Your task to perform on an android device: Install the CNN app Image 0: 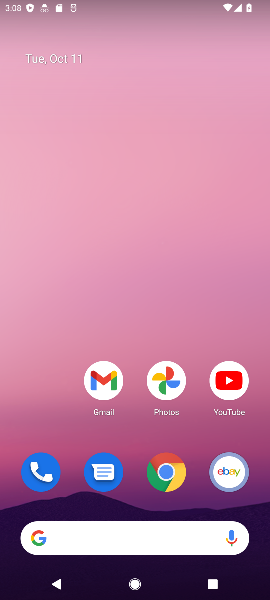
Step 0: drag from (135, 504) to (153, 4)
Your task to perform on an android device: Install the CNN app Image 1: 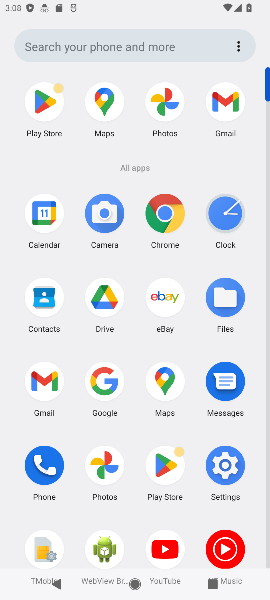
Step 1: click (54, 114)
Your task to perform on an android device: Install the CNN app Image 2: 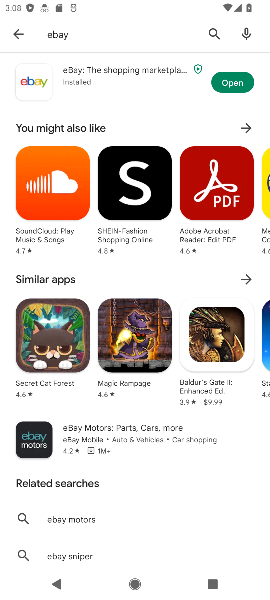
Step 2: click (216, 32)
Your task to perform on an android device: Install the CNN app Image 3: 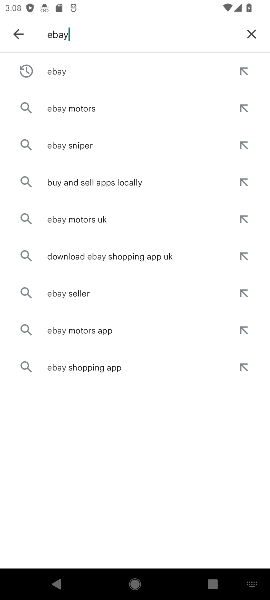
Step 3: click (254, 33)
Your task to perform on an android device: Install the CNN app Image 4: 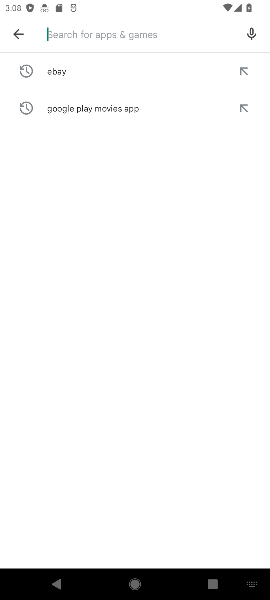
Step 4: type "cnn"
Your task to perform on an android device: Install the CNN app Image 5: 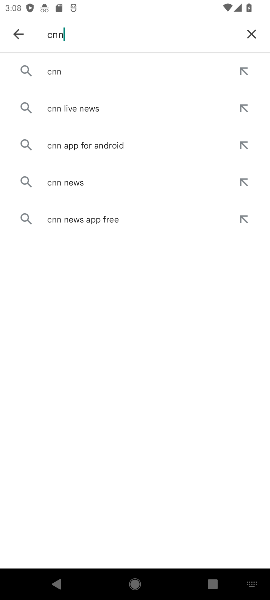
Step 5: click (177, 65)
Your task to perform on an android device: Install the CNN app Image 6: 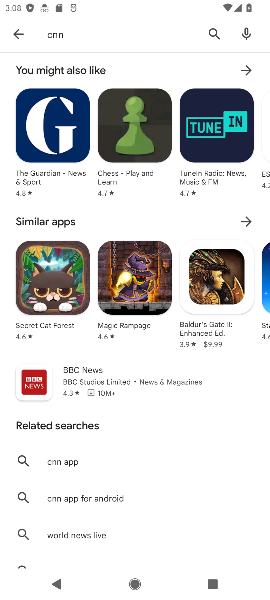
Step 6: click (73, 455)
Your task to perform on an android device: Install the CNN app Image 7: 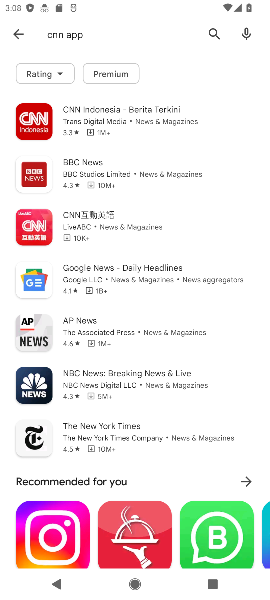
Step 7: click (78, 123)
Your task to perform on an android device: Install the CNN app Image 8: 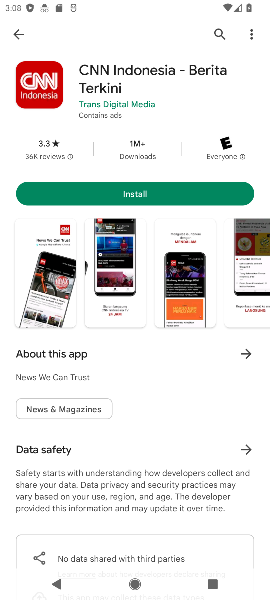
Step 8: click (172, 192)
Your task to perform on an android device: Install the CNN app Image 9: 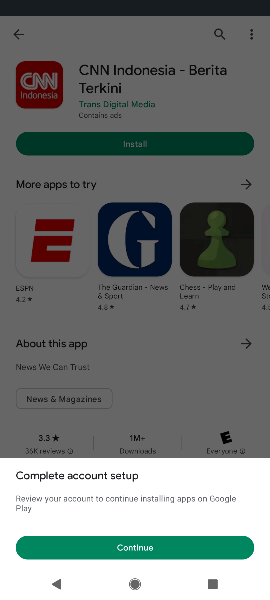
Step 9: click (184, 548)
Your task to perform on an android device: Install the CNN app Image 10: 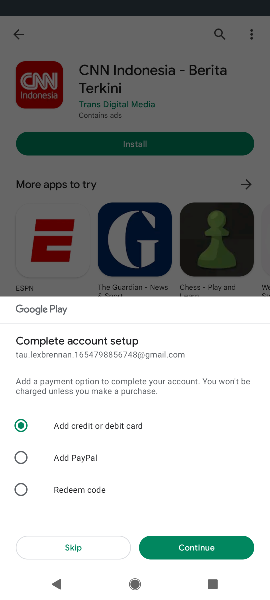
Step 10: click (60, 546)
Your task to perform on an android device: Install the CNN app Image 11: 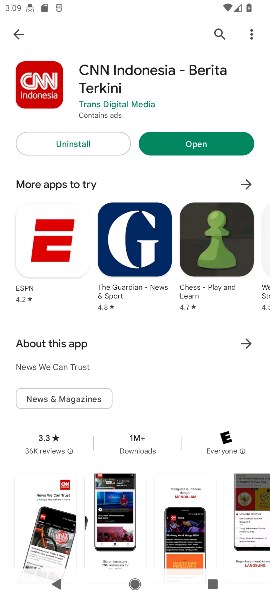
Step 11: task complete